Your task to perform on an android device: toggle show notifications on the lock screen Image 0: 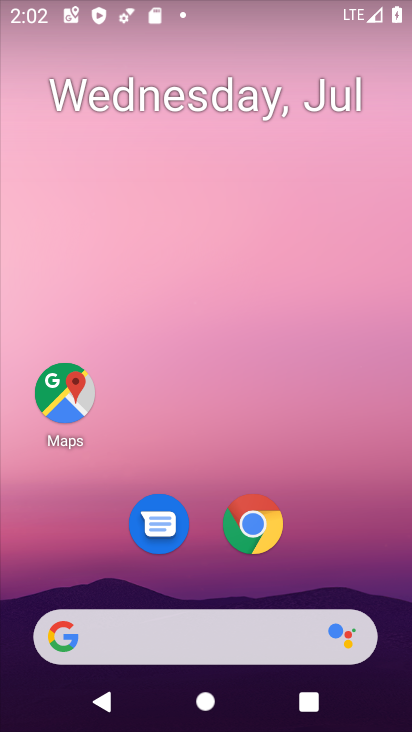
Step 0: drag from (325, 540) to (357, 28)
Your task to perform on an android device: toggle show notifications on the lock screen Image 1: 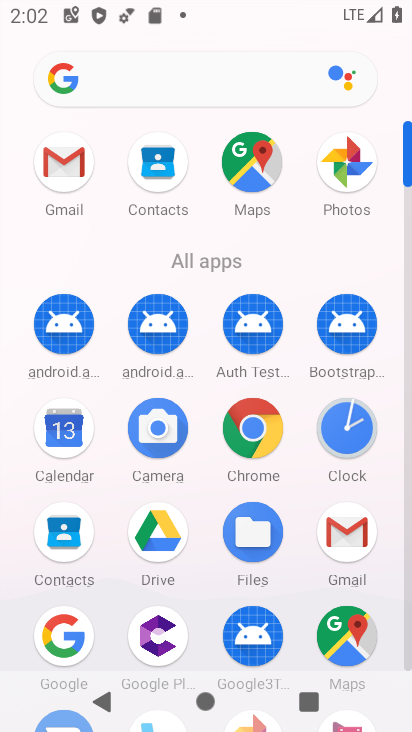
Step 1: drag from (216, 408) to (230, 119)
Your task to perform on an android device: toggle show notifications on the lock screen Image 2: 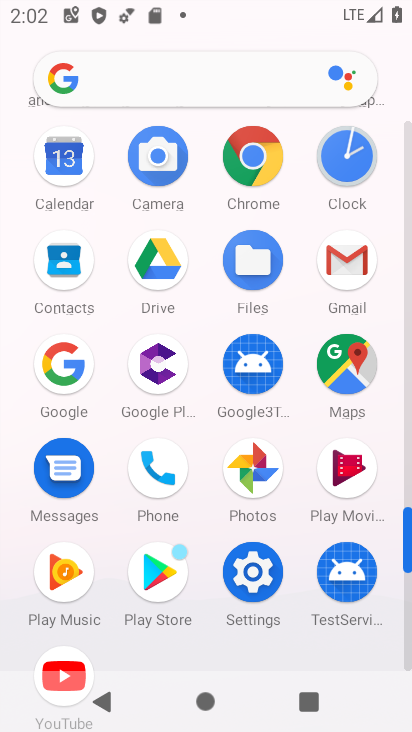
Step 2: click (268, 583)
Your task to perform on an android device: toggle show notifications on the lock screen Image 3: 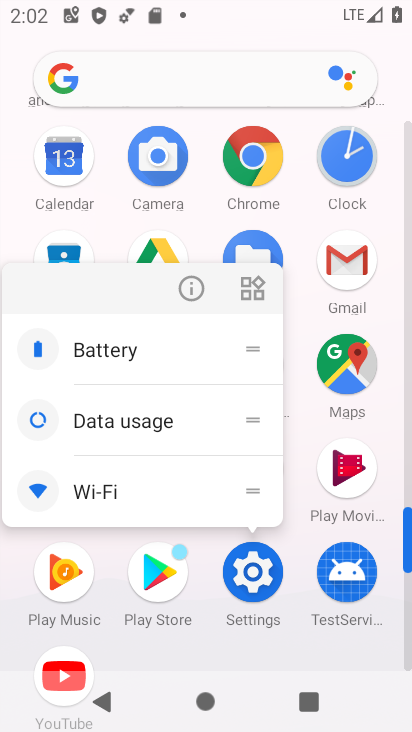
Step 3: click (272, 582)
Your task to perform on an android device: toggle show notifications on the lock screen Image 4: 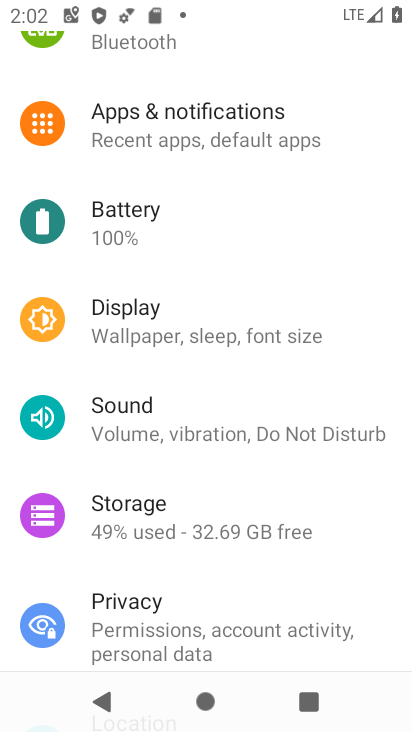
Step 4: click (268, 114)
Your task to perform on an android device: toggle show notifications on the lock screen Image 5: 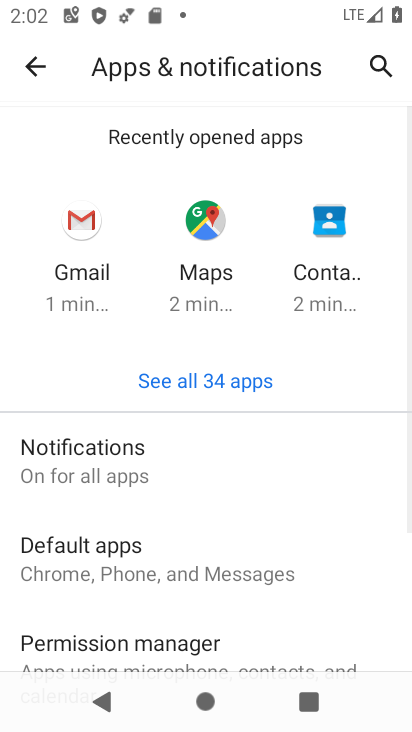
Step 5: click (113, 458)
Your task to perform on an android device: toggle show notifications on the lock screen Image 6: 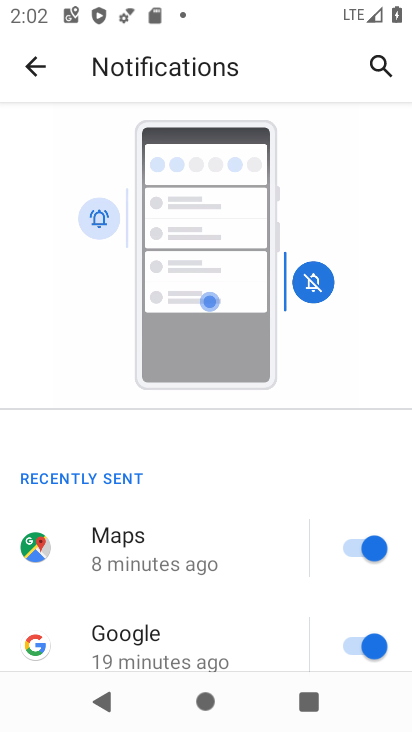
Step 6: drag from (206, 561) to (210, 104)
Your task to perform on an android device: toggle show notifications on the lock screen Image 7: 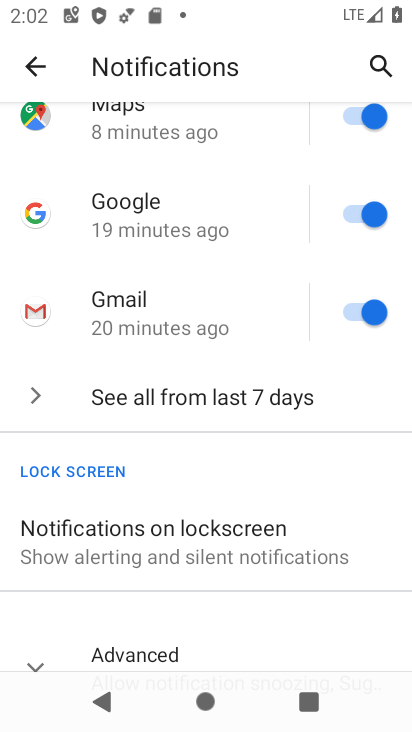
Step 7: click (197, 532)
Your task to perform on an android device: toggle show notifications on the lock screen Image 8: 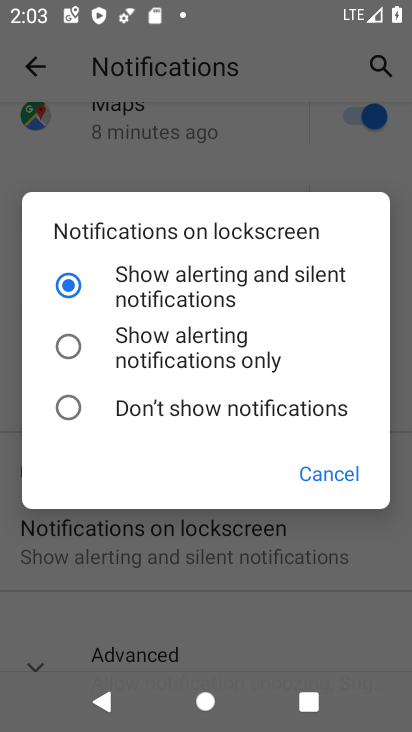
Step 8: click (63, 406)
Your task to perform on an android device: toggle show notifications on the lock screen Image 9: 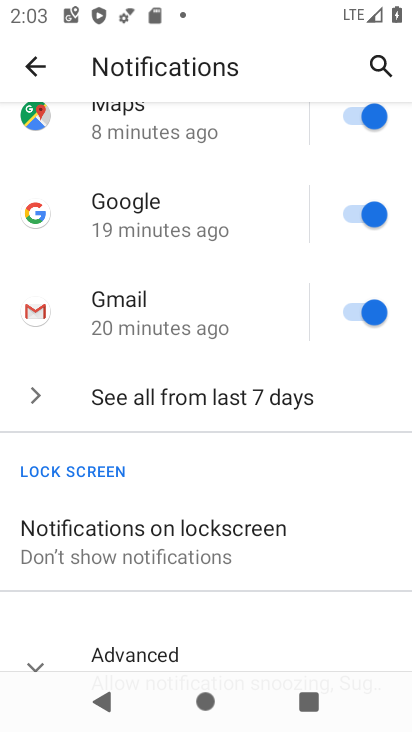
Step 9: task complete